Your task to perform on an android device: snooze an email in the gmail app Image 0: 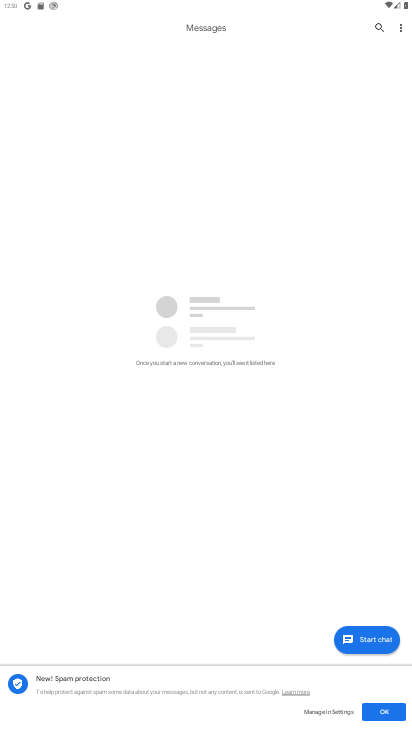
Step 0: press home button
Your task to perform on an android device: snooze an email in the gmail app Image 1: 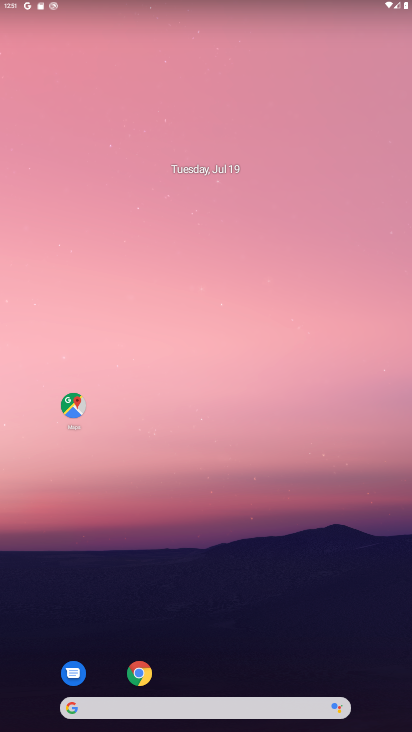
Step 1: drag from (137, 693) to (271, 123)
Your task to perform on an android device: snooze an email in the gmail app Image 2: 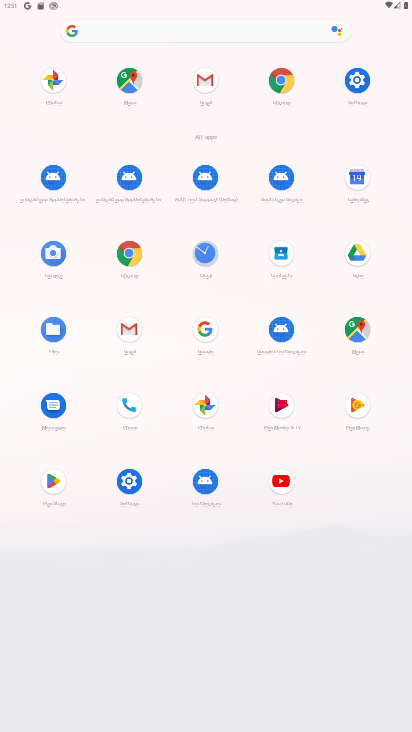
Step 2: click (188, 77)
Your task to perform on an android device: snooze an email in the gmail app Image 3: 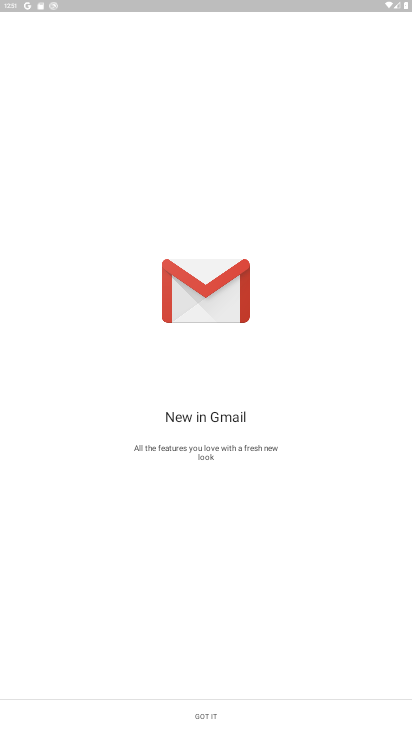
Step 3: click (174, 707)
Your task to perform on an android device: snooze an email in the gmail app Image 4: 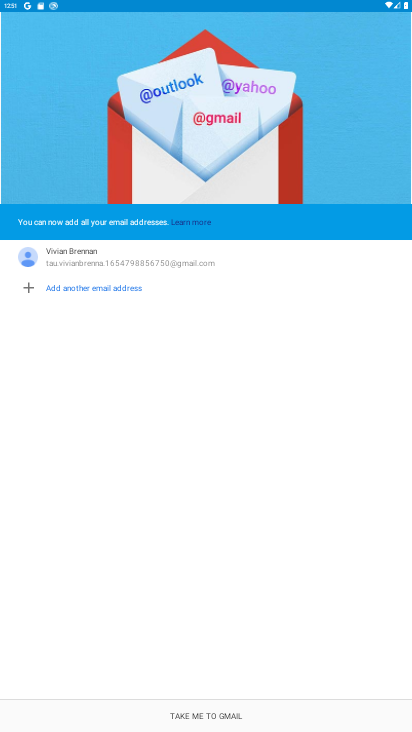
Step 4: click (174, 707)
Your task to perform on an android device: snooze an email in the gmail app Image 5: 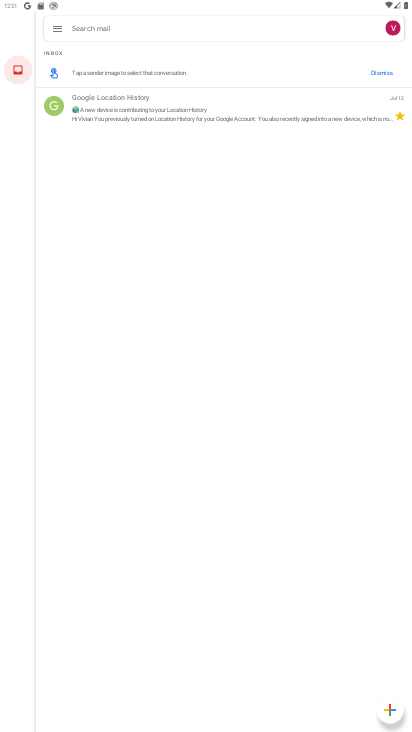
Step 5: click (235, 113)
Your task to perform on an android device: snooze an email in the gmail app Image 6: 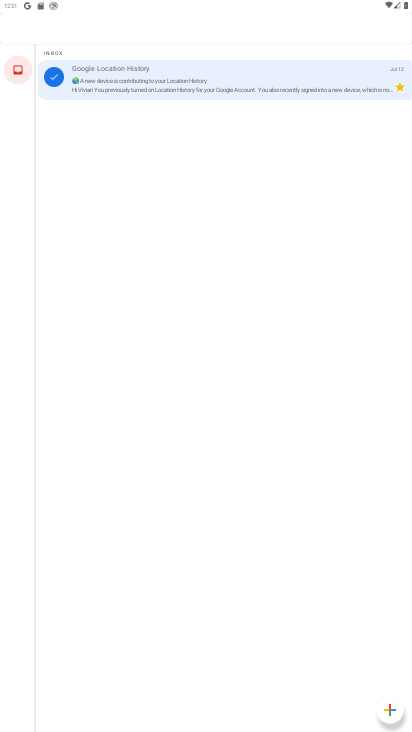
Step 6: click (235, 113)
Your task to perform on an android device: snooze an email in the gmail app Image 7: 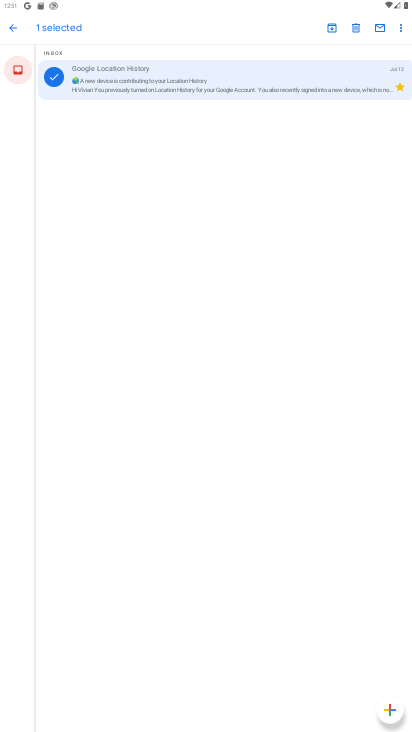
Step 7: click (403, 18)
Your task to perform on an android device: snooze an email in the gmail app Image 8: 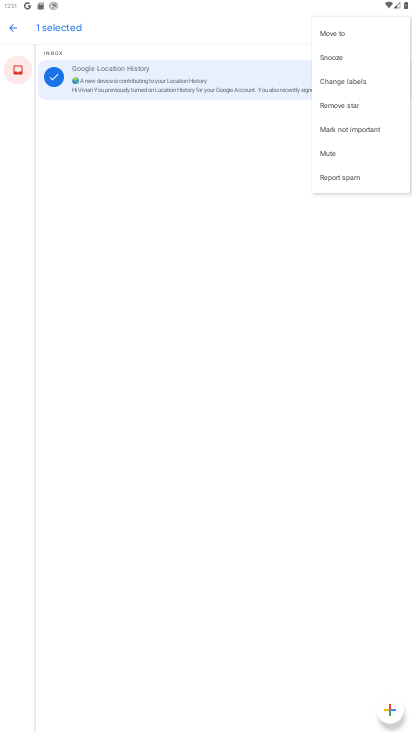
Step 8: click (360, 61)
Your task to perform on an android device: snooze an email in the gmail app Image 9: 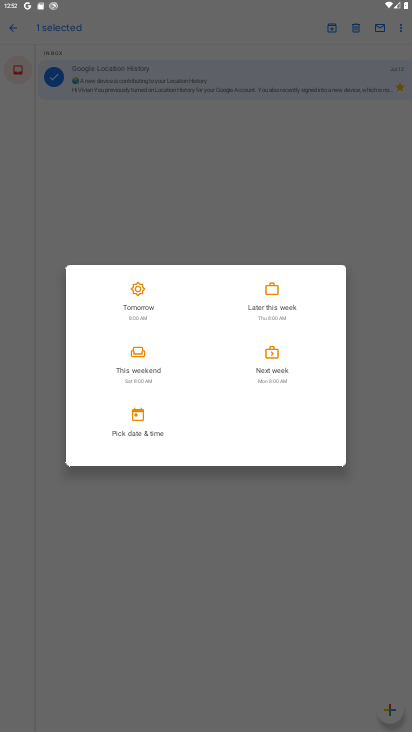
Step 9: click (140, 307)
Your task to perform on an android device: snooze an email in the gmail app Image 10: 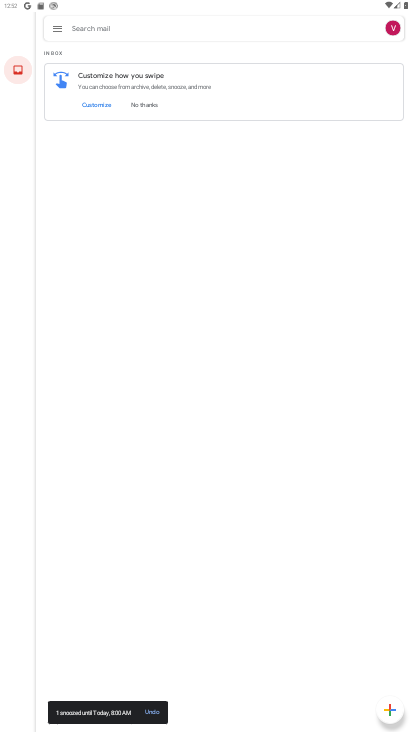
Step 10: task complete